Your task to perform on an android device: add a contact in the contacts app Image 0: 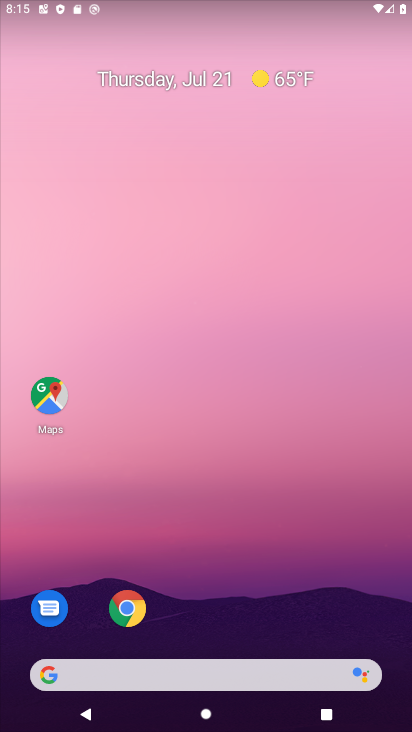
Step 0: drag from (216, 679) to (280, 170)
Your task to perform on an android device: add a contact in the contacts app Image 1: 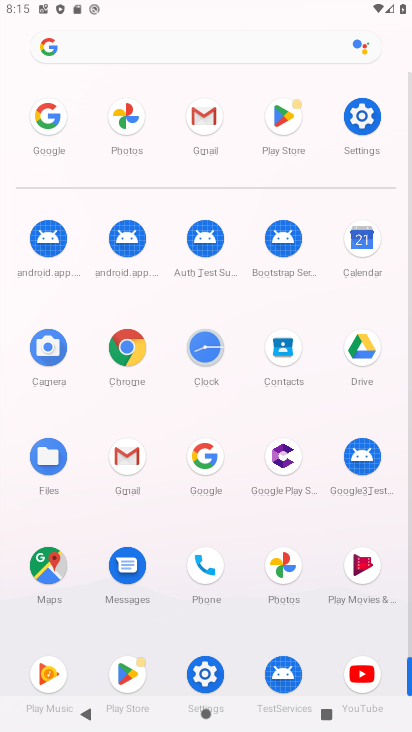
Step 1: click (283, 345)
Your task to perform on an android device: add a contact in the contacts app Image 2: 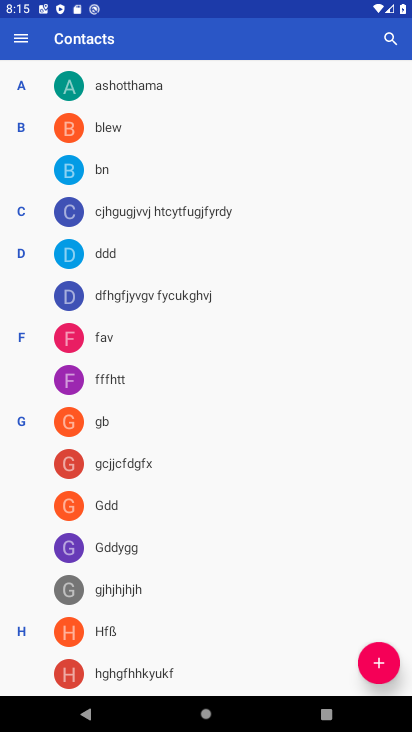
Step 2: click (379, 662)
Your task to perform on an android device: add a contact in the contacts app Image 3: 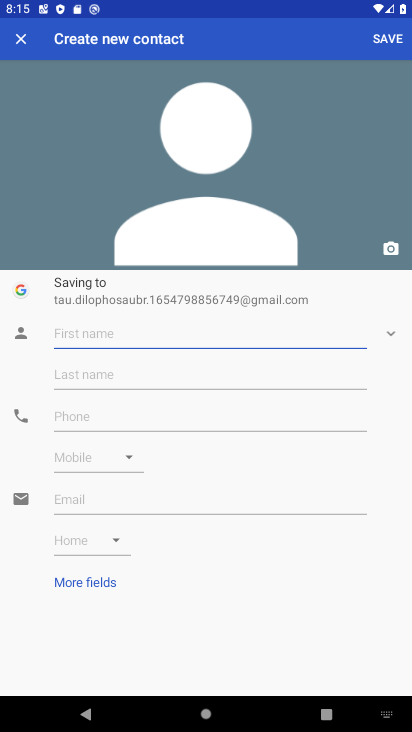
Step 3: click (291, 331)
Your task to perform on an android device: add a contact in the contacts app Image 4: 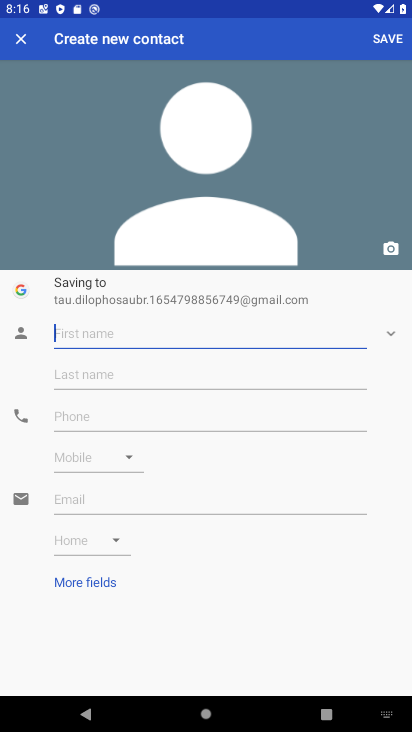
Step 4: type "Jaqualline"
Your task to perform on an android device: add a contact in the contacts app Image 5: 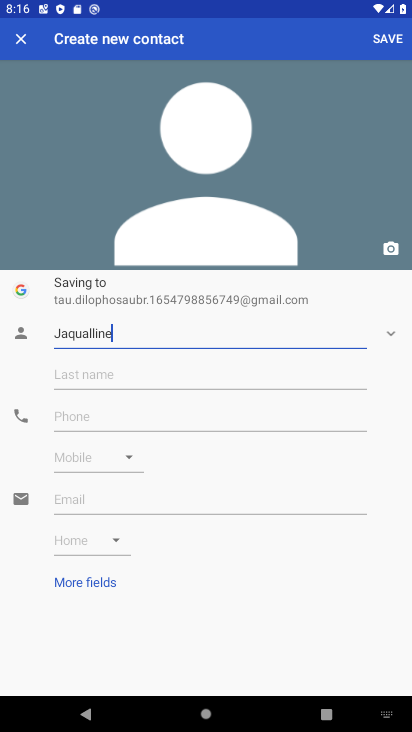
Step 5: click (337, 389)
Your task to perform on an android device: add a contact in the contacts app Image 6: 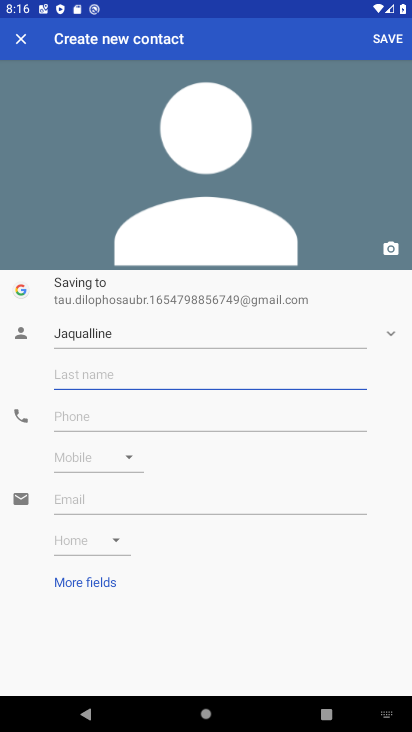
Step 6: type "Fernandis"
Your task to perform on an android device: add a contact in the contacts app Image 7: 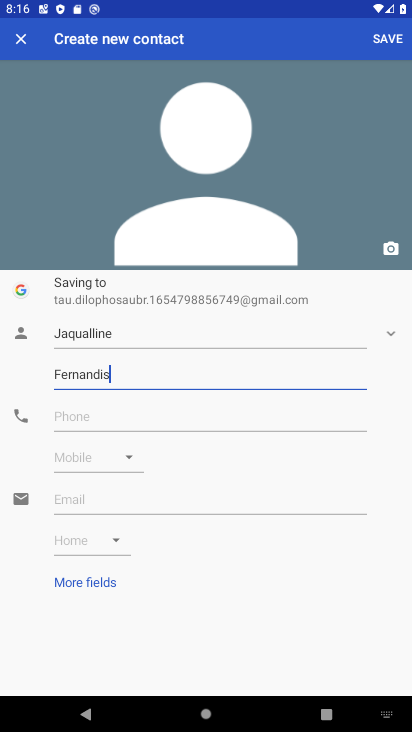
Step 7: click (284, 419)
Your task to perform on an android device: add a contact in the contacts app Image 8: 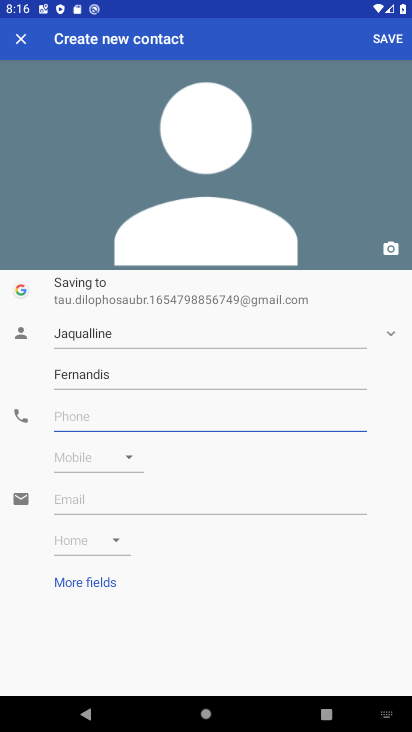
Step 8: type "0987654321"
Your task to perform on an android device: add a contact in the contacts app Image 9: 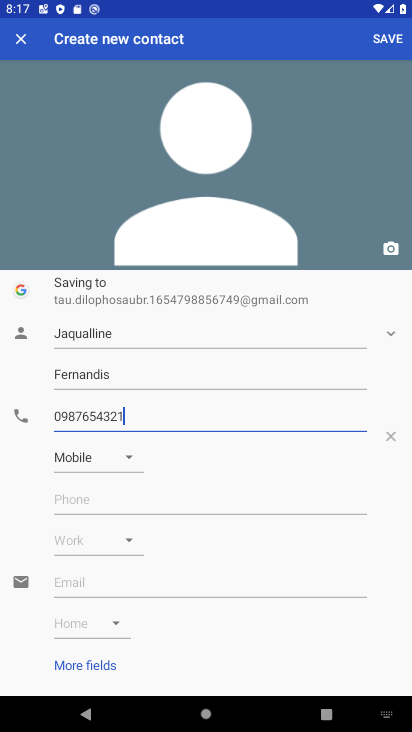
Step 9: click (387, 41)
Your task to perform on an android device: add a contact in the contacts app Image 10: 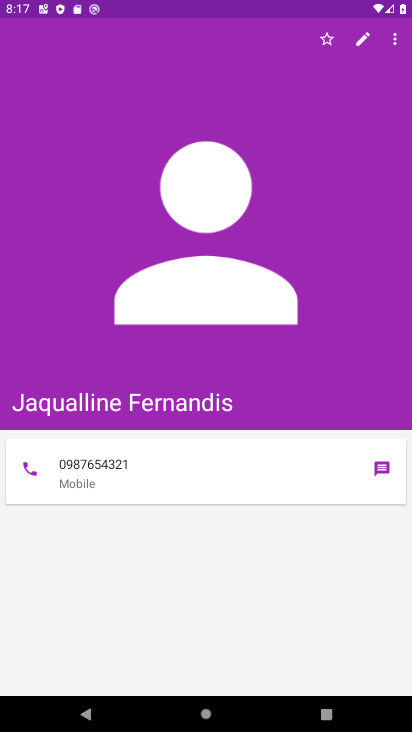
Step 10: task complete